Your task to perform on an android device: open a new tab in the chrome app Image 0: 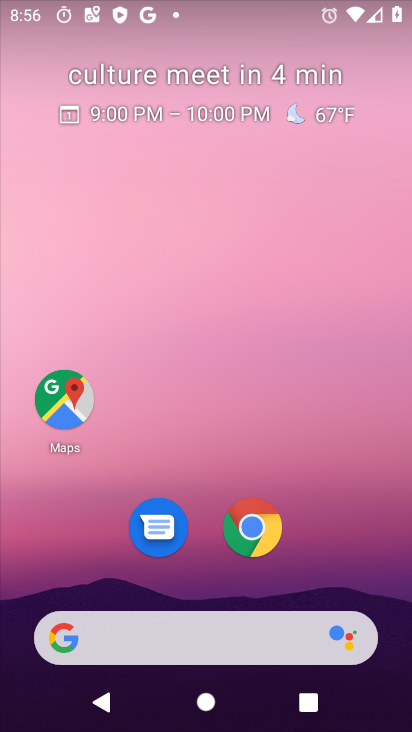
Step 0: click (245, 528)
Your task to perform on an android device: open a new tab in the chrome app Image 1: 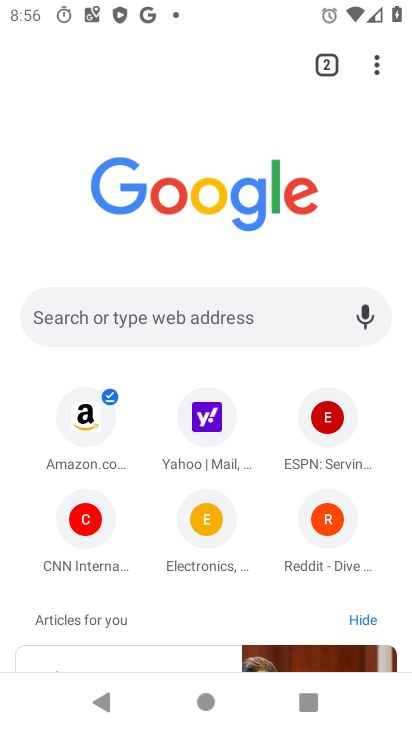
Step 1: click (377, 72)
Your task to perform on an android device: open a new tab in the chrome app Image 2: 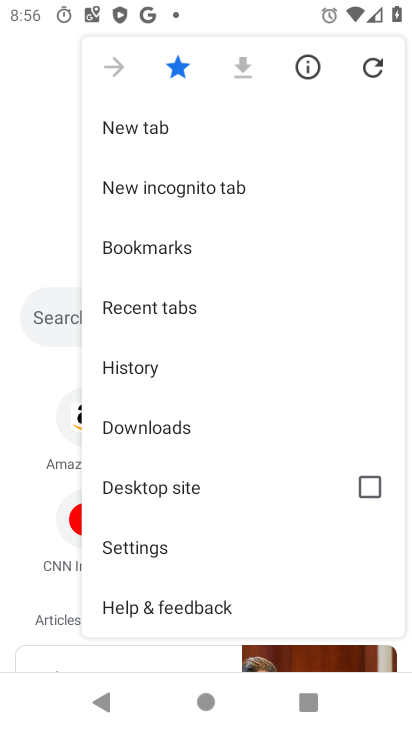
Step 2: click (156, 128)
Your task to perform on an android device: open a new tab in the chrome app Image 3: 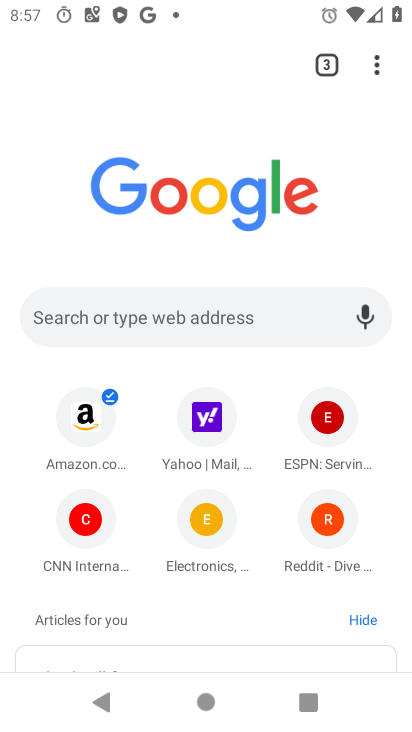
Step 3: task complete